Your task to perform on an android device: toggle location history Image 0: 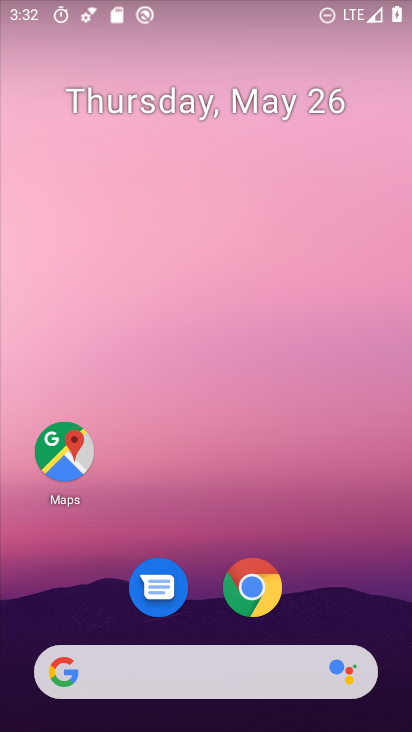
Step 0: drag from (352, 531) to (256, 30)
Your task to perform on an android device: toggle location history Image 1: 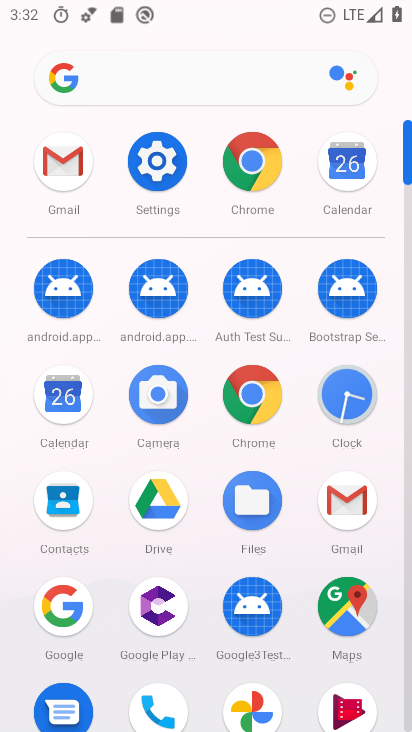
Step 1: click (156, 150)
Your task to perform on an android device: toggle location history Image 2: 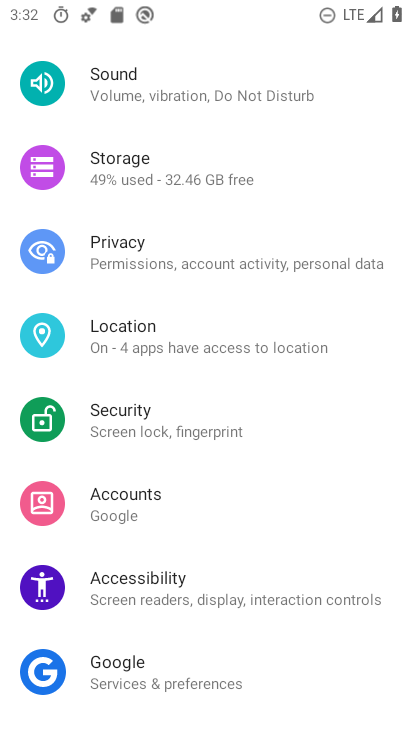
Step 2: click (207, 632)
Your task to perform on an android device: toggle location history Image 3: 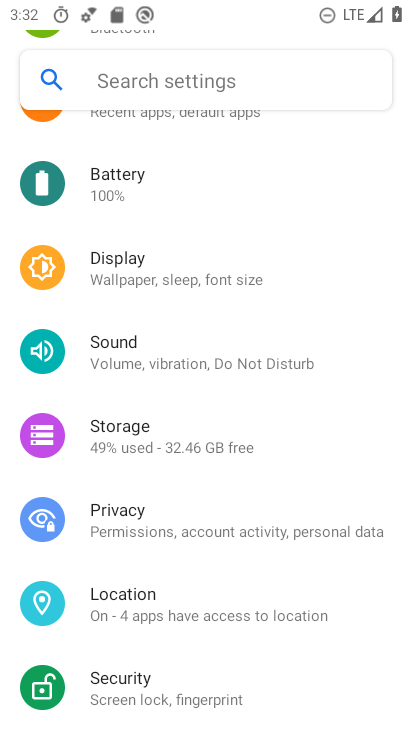
Step 3: click (217, 616)
Your task to perform on an android device: toggle location history Image 4: 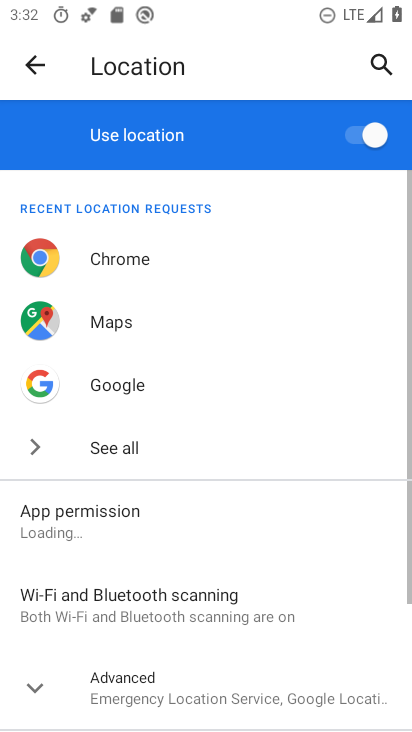
Step 4: drag from (230, 574) to (281, 153)
Your task to perform on an android device: toggle location history Image 5: 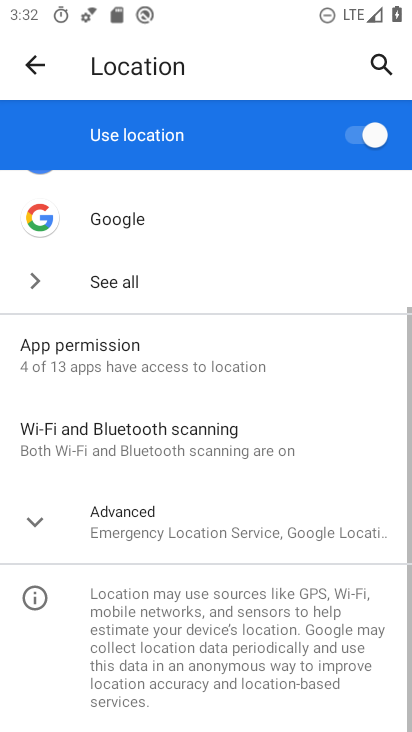
Step 5: click (170, 535)
Your task to perform on an android device: toggle location history Image 6: 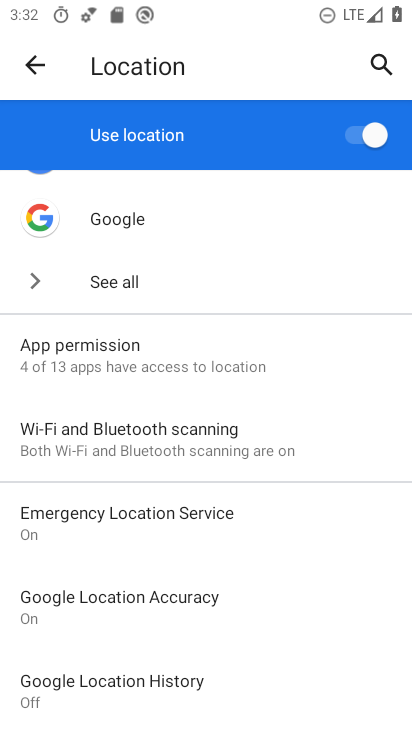
Step 6: click (152, 673)
Your task to perform on an android device: toggle location history Image 7: 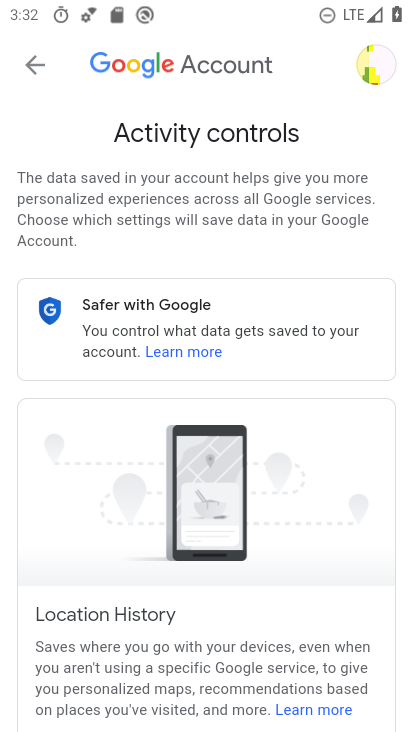
Step 7: drag from (219, 472) to (254, 49)
Your task to perform on an android device: toggle location history Image 8: 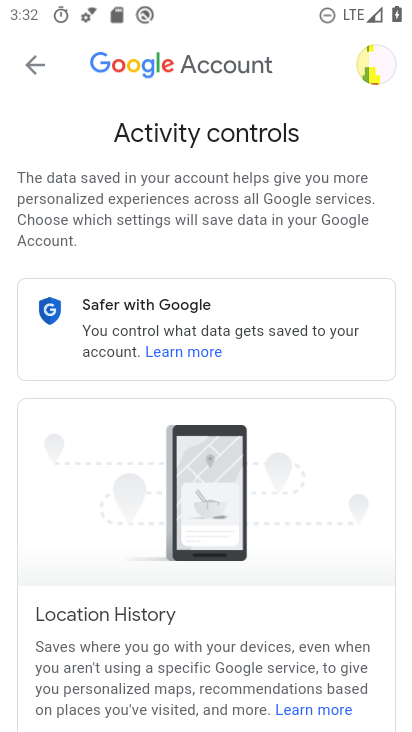
Step 8: drag from (196, 445) to (291, 79)
Your task to perform on an android device: toggle location history Image 9: 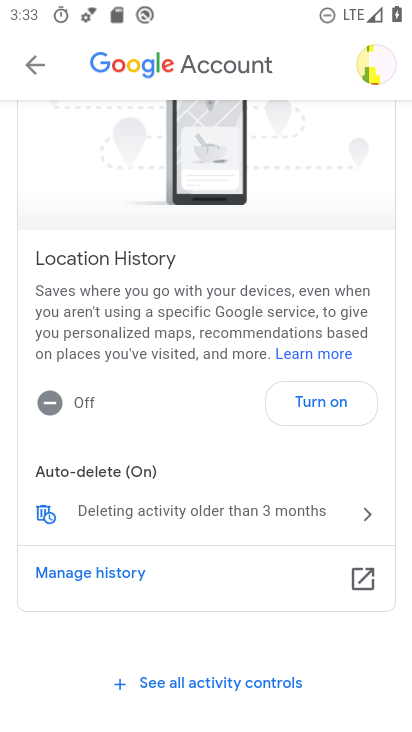
Step 9: click (316, 407)
Your task to perform on an android device: toggle location history Image 10: 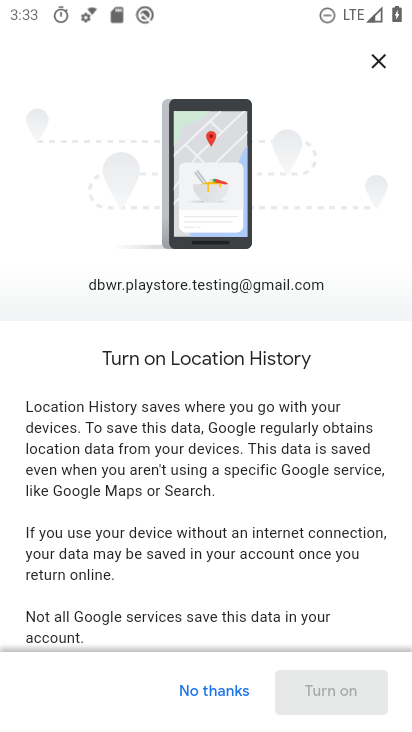
Step 10: drag from (293, 548) to (328, 116)
Your task to perform on an android device: toggle location history Image 11: 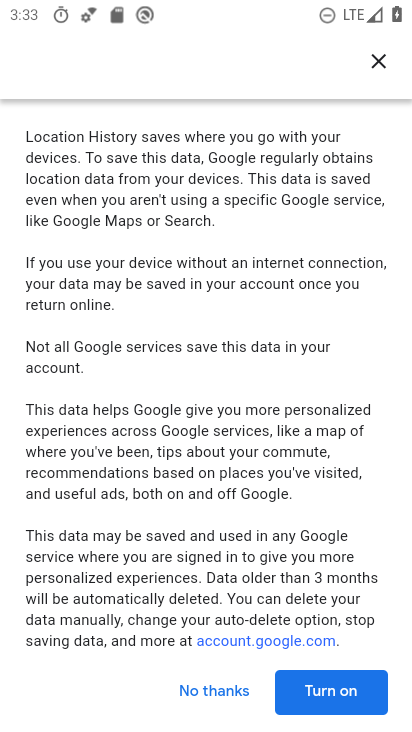
Step 11: click (324, 690)
Your task to perform on an android device: toggle location history Image 12: 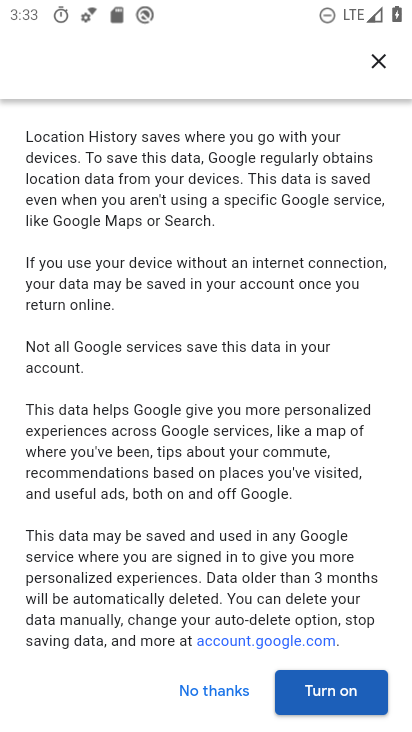
Step 12: click (323, 689)
Your task to perform on an android device: toggle location history Image 13: 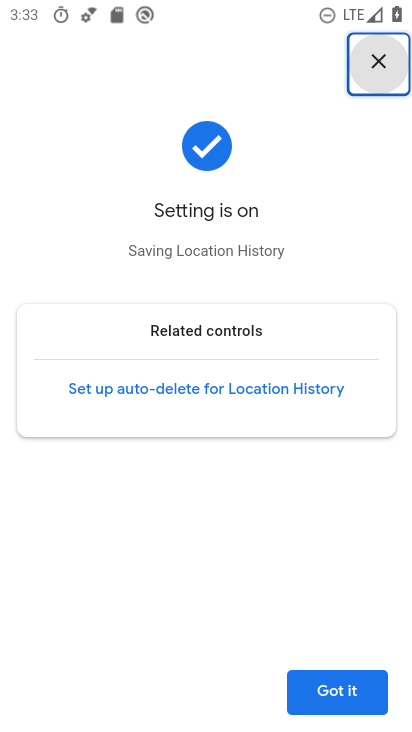
Step 13: task complete